Your task to perform on an android device: Open the Play Movies app and select the watchlist tab. Image 0: 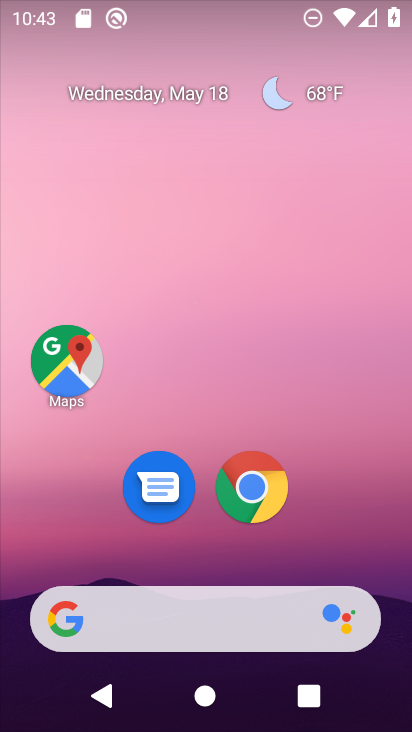
Step 0: drag from (323, 517) to (339, 132)
Your task to perform on an android device: Open the Play Movies app and select the watchlist tab. Image 1: 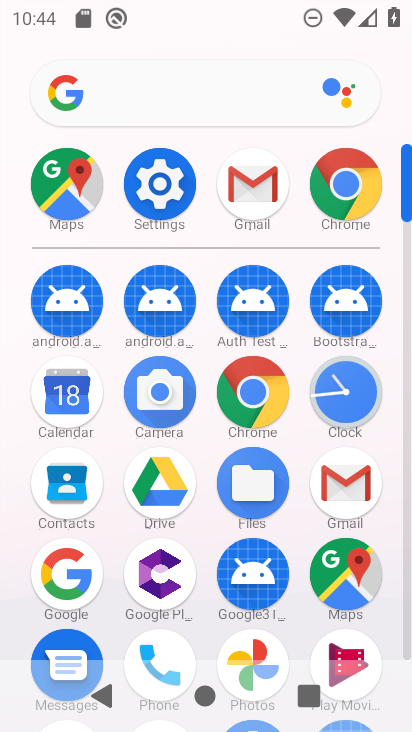
Step 1: click (348, 645)
Your task to perform on an android device: Open the Play Movies app and select the watchlist tab. Image 2: 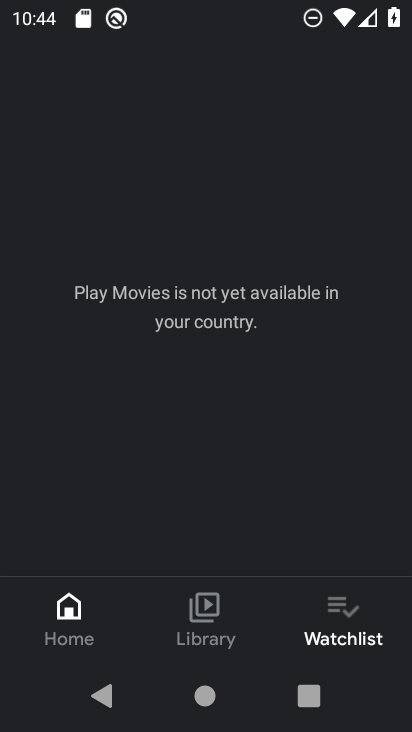
Step 2: task complete